Your task to perform on an android device: check google app version Image 0: 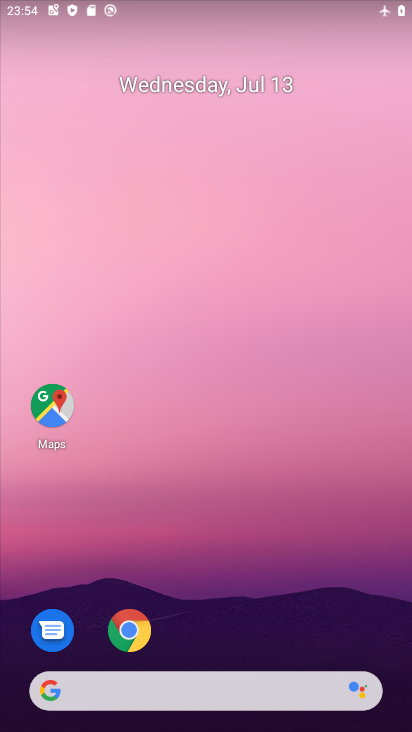
Step 0: drag from (295, 625) to (283, 491)
Your task to perform on an android device: check google app version Image 1: 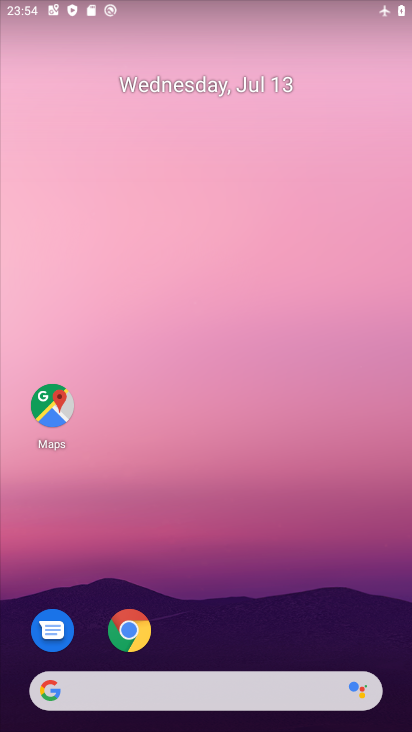
Step 1: drag from (284, 454) to (282, 85)
Your task to perform on an android device: check google app version Image 2: 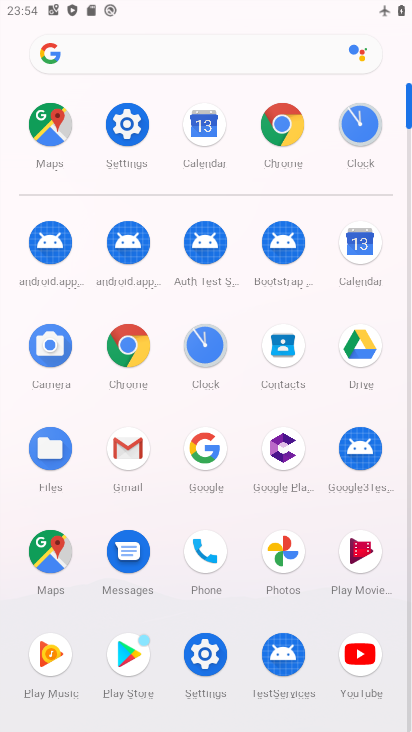
Step 2: click (212, 439)
Your task to perform on an android device: check google app version Image 3: 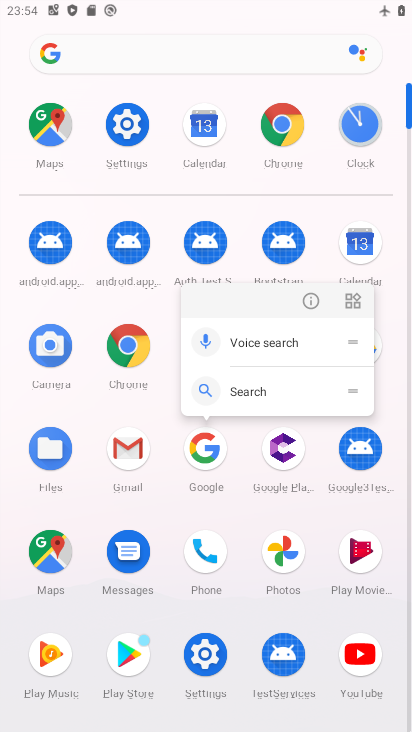
Step 3: click (212, 439)
Your task to perform on an android device: check google app version Image 4: 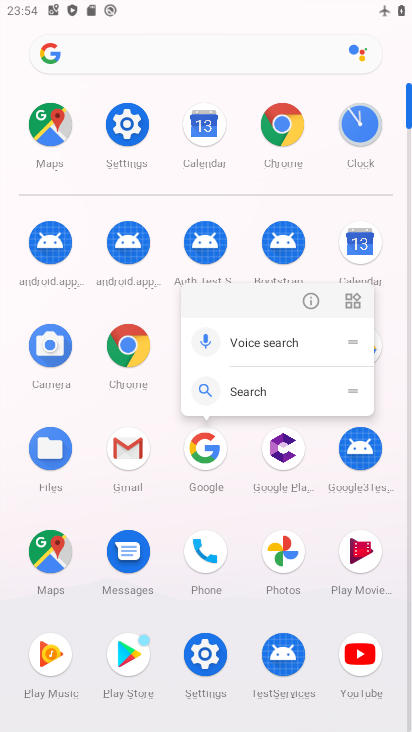
Step 4: click (212, 449)
Your task to perform on an android device: check google app version Image 5: 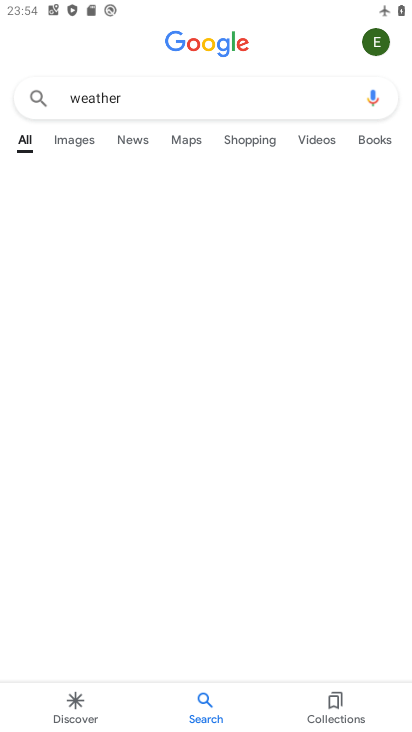
Step 5: click (384, 35)
Your task to perform on an android device: check google app version Image 6: 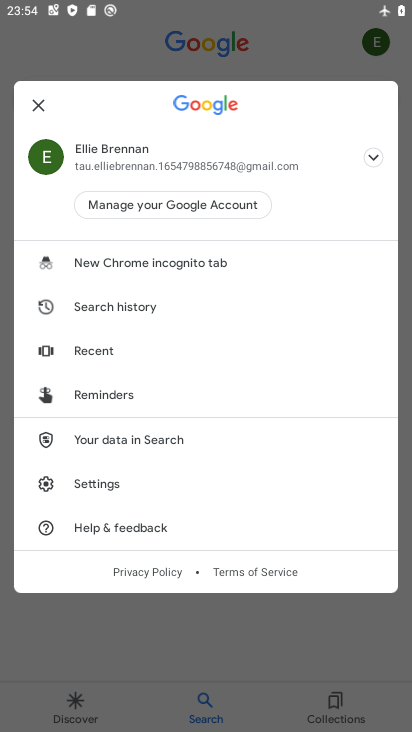
Step 6: click (126, 483)
Your task to perform on an android device: check google app version Image 7: 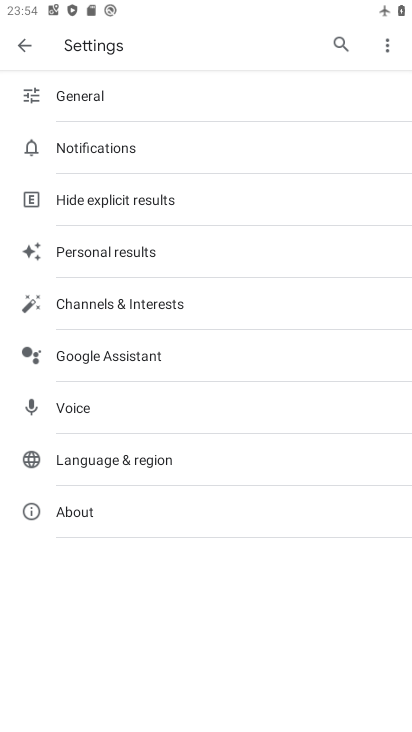
Step 7: click (200, 508)
Your task to perform on an android device: check google app version Image 8: 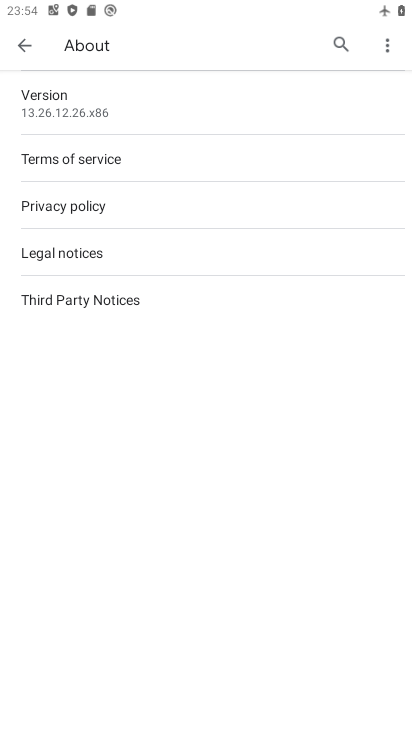
Step 8: task complete